Your task to perform on an android device: turn on priority inbox in the gmail app Image 0: 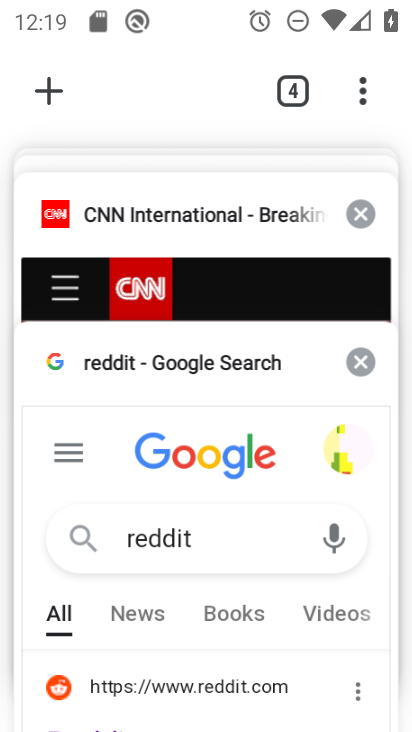
Step 0: press home button
Your task to perform on an android device: turn on priority inbox in the gmail app Image 1: 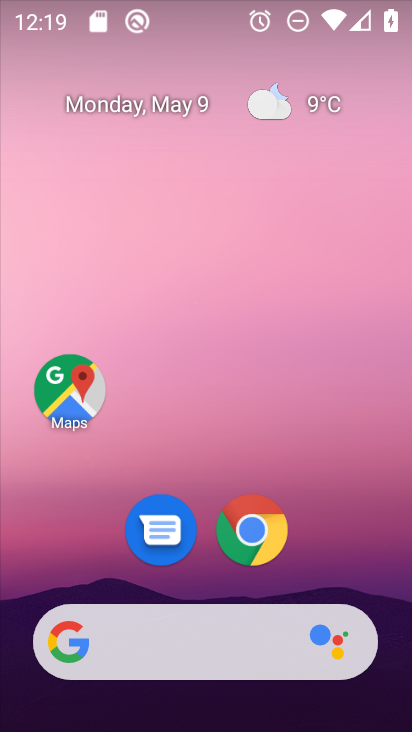
Step 1: drag from (192, 572) to (260, 141)
Your task to perform on an android device: turn on priority inbox in the gmail app Image 2: 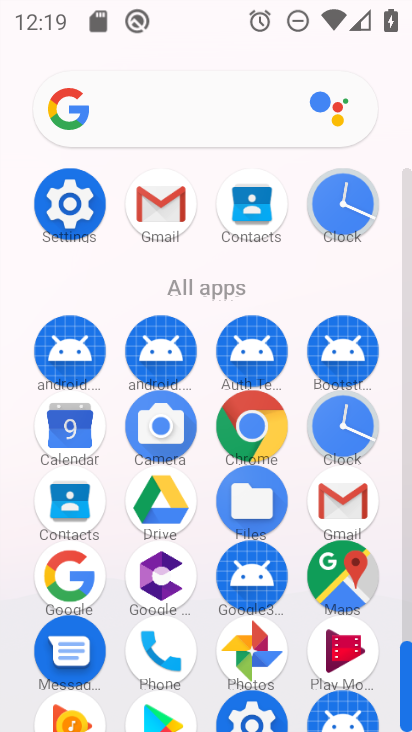
Step 2: click (162, 186)
Your task to perform on an android device: turn on priority inbox in the gmail app Image 3: 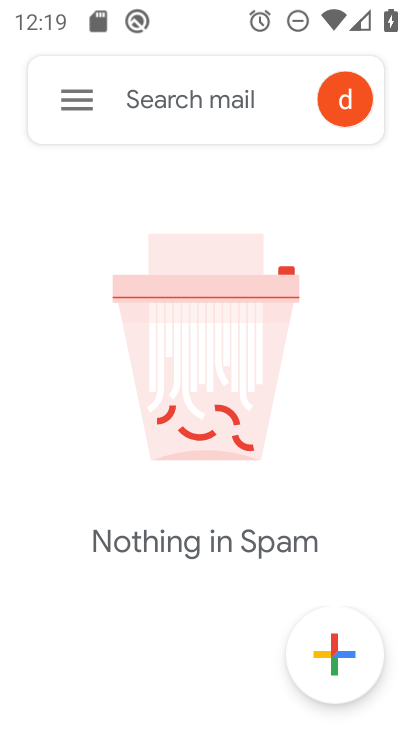
Step 3: click (75, 109)
Your task to perform on an android device: turn on priority inbox in the gmail app Image 4: 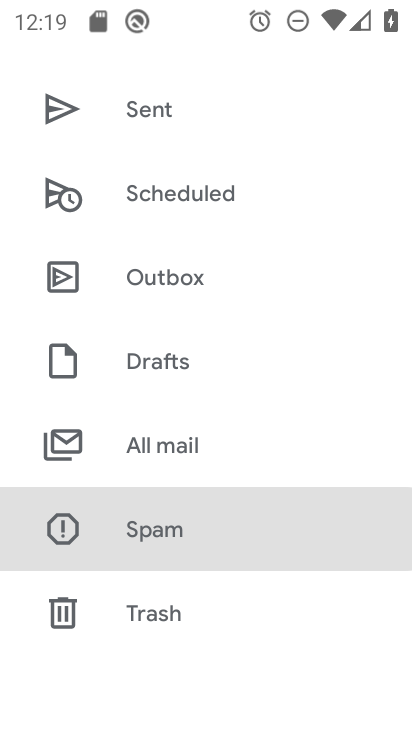
Step 4: drag from (120, 636) to (140, 375)
Your task to perform on an android device: turn on priority inbox in the gmail app Image 5: 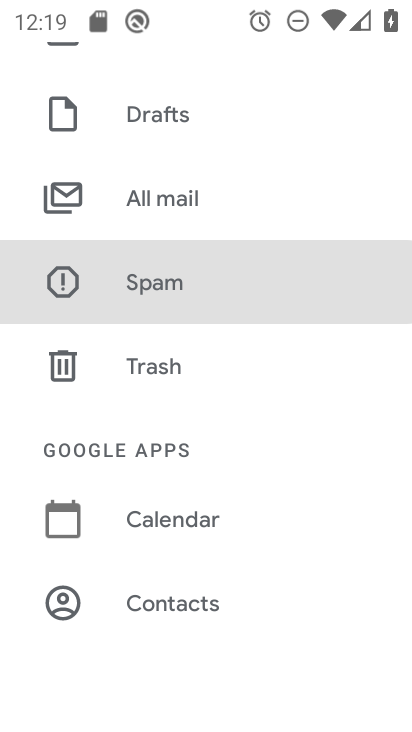
Step 5: drag from (165, 574) to (266, 128)
Your task to perform on an android device: turn on priority inbox in the gmail app Image 6: 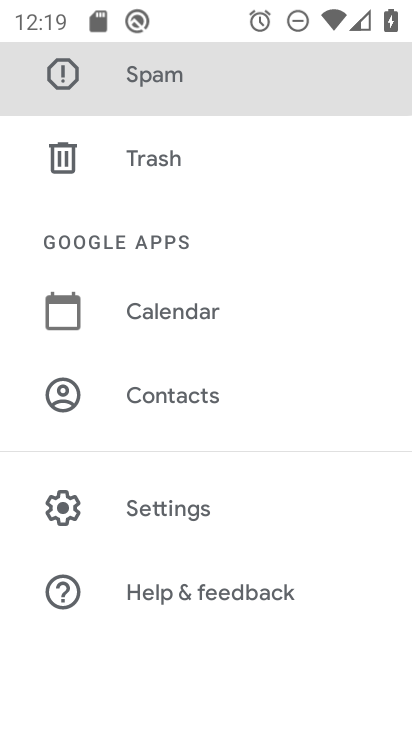
Step 6: click (182, 500)
Your task to perform on an android device: turn on priority inbox in the gmail app Image 7: 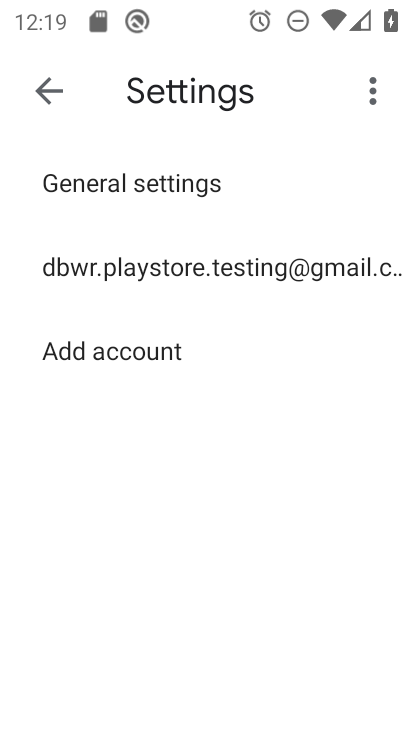
Step 7: click (162, 241)
Your task to perform on an android device: turn on priority inbox in the gmail app Image 8: 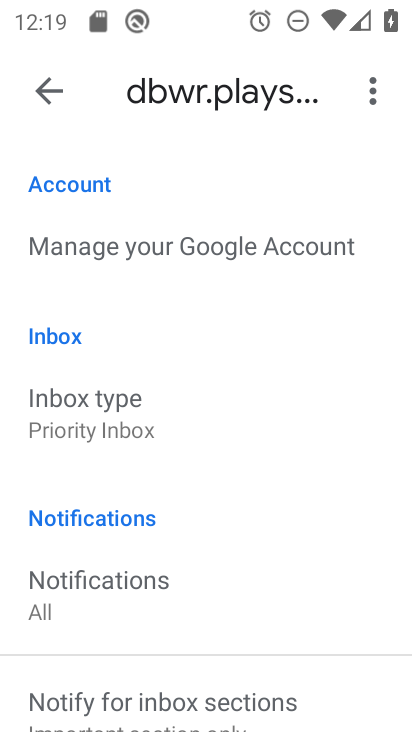
Step 8: click (176, 421)
Your task to perform on an android device: turn on priority inbox in the gmail app Image 9: 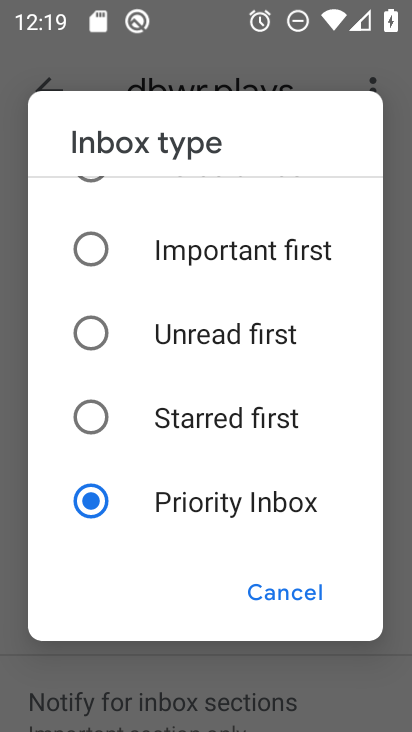
Step 9: task complete